Your task to perform on an android device: change timer sound Image 0: 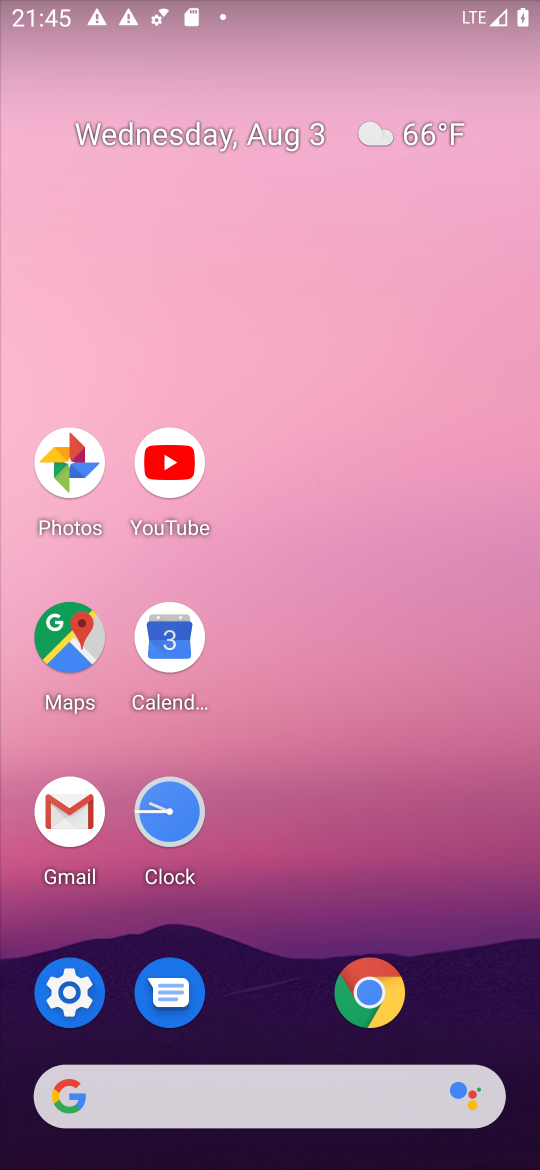
Step 0: click (160, 802)
Your task to perform on an android device: change timer sound Image 1: 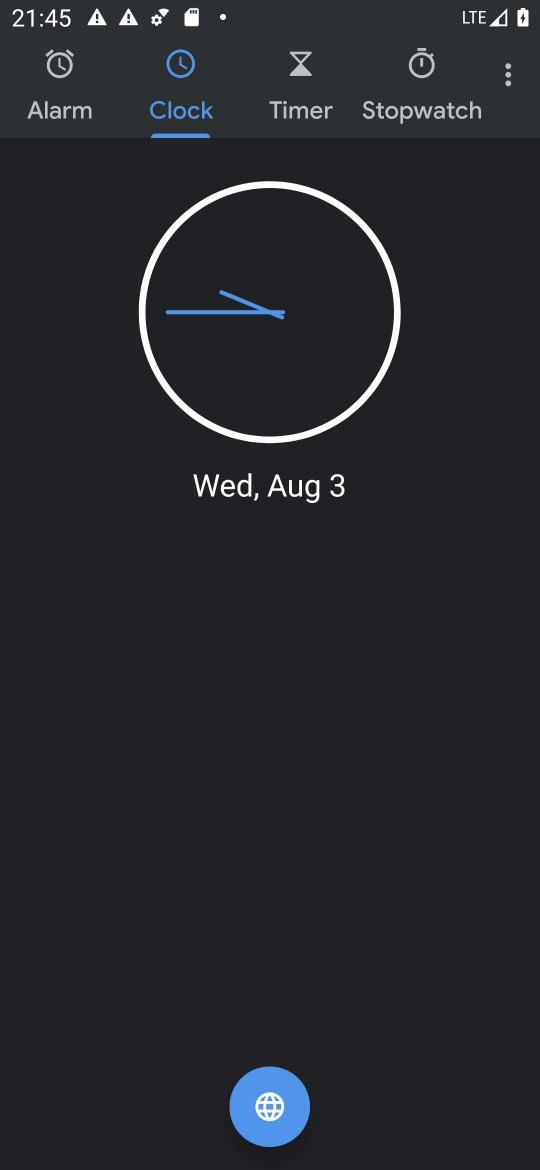
Step 1: click (504, 81)
Your task to perform on an android device: change timer sound Image 2: 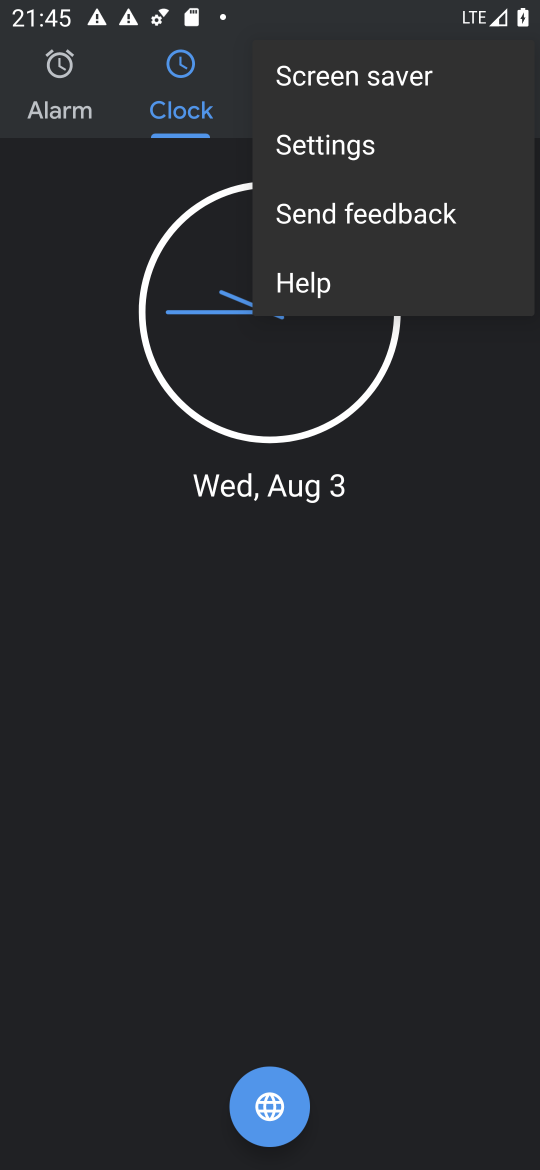
Step 2: click (345, 118)
Your task to perform on an android device: change timer sound Image 3: 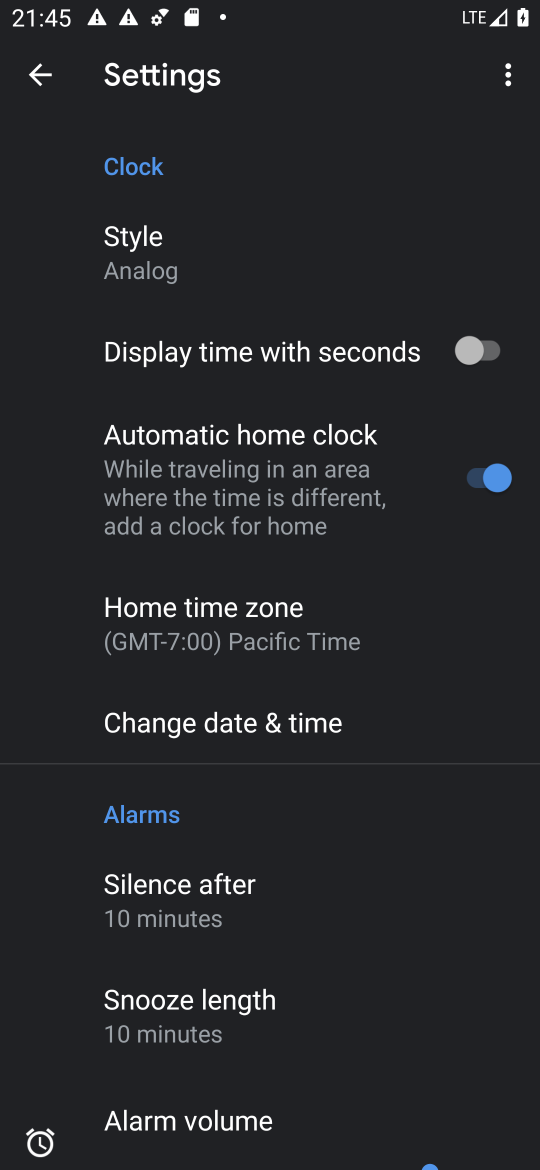
Step 3: drag from (301, 1041) to (274, 514)
Your task to perform on an android device: change timer sound Image 4: 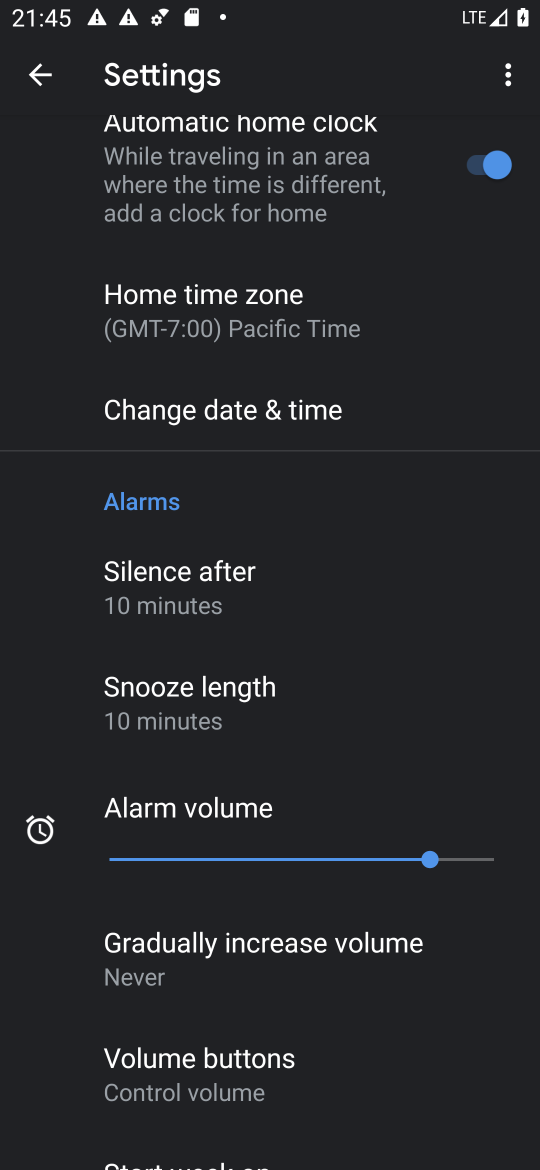
Step 4: drag from (333, 1014) to (332, 319)
Your task to perform on an android device: change timer sound Image 5: 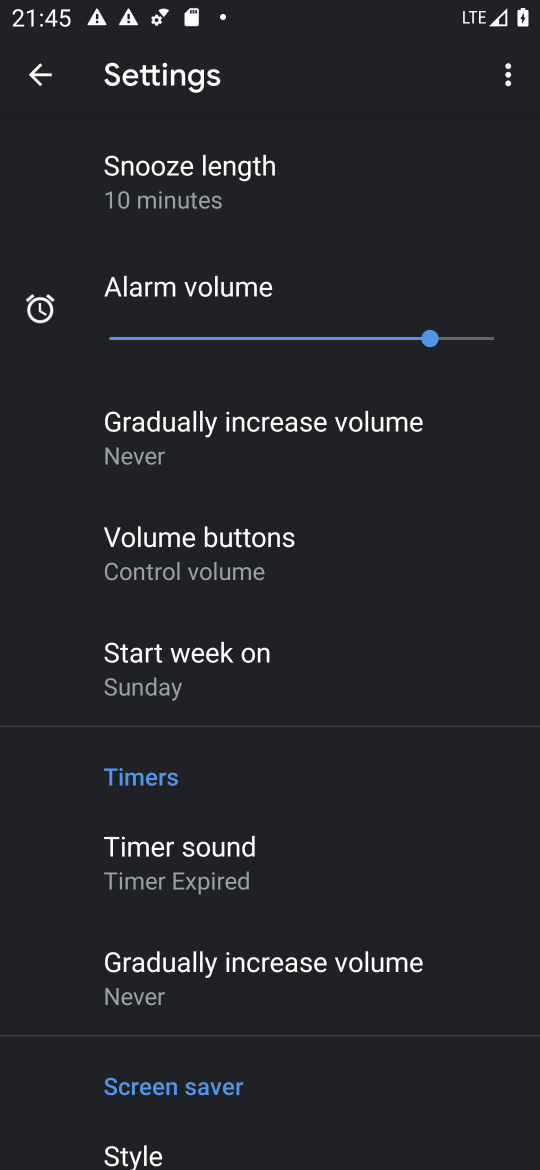
Step 5: click (177, 854)
Your task to perform on an android device: change timer sound Image 6: 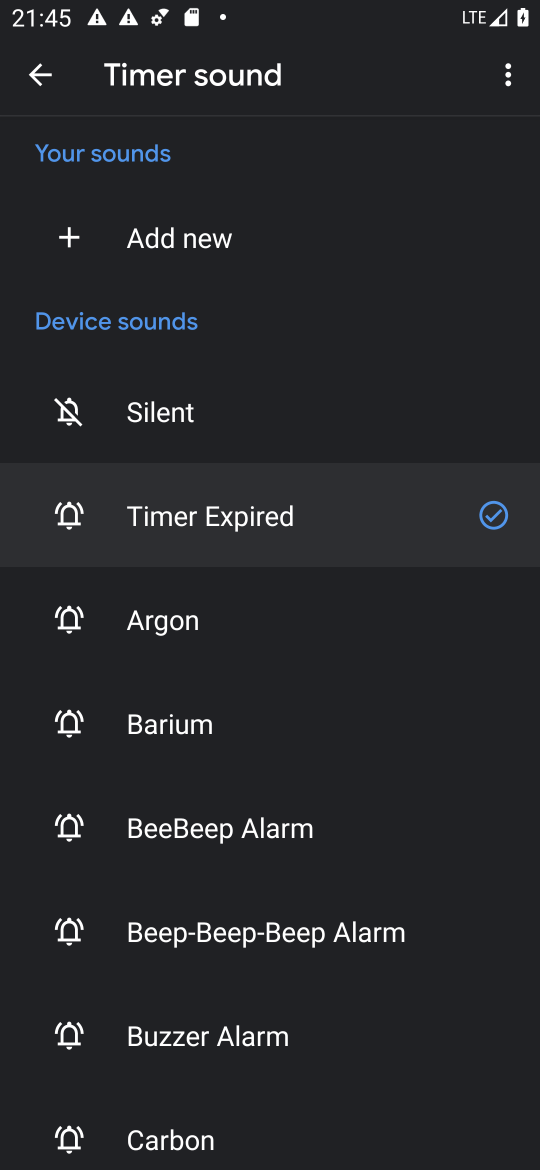
Step 6: click (165, 609)
Your task to perform on an android device: change timer sound Image 7: 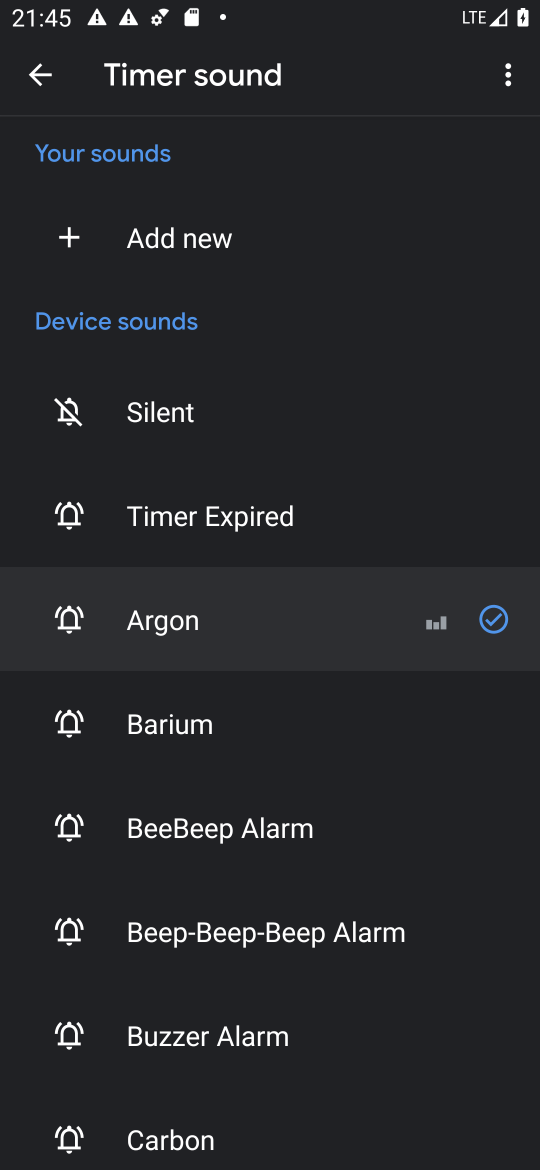
Step 7: task complete